Your task to perform on an android device: Go to display settings Image 0: 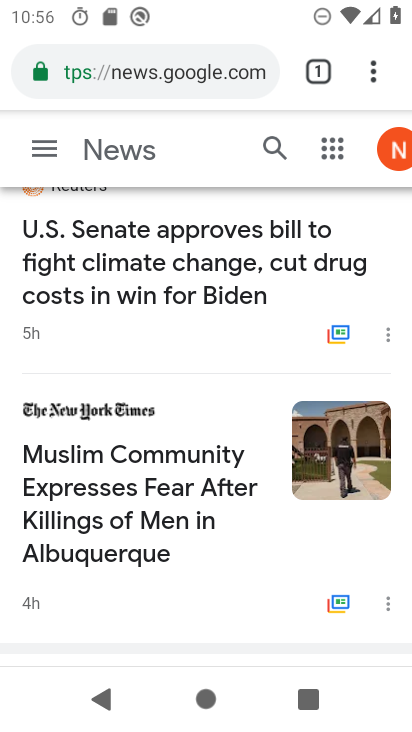
Step 0: press home button
Your task to perform on an android device: Go to display settings Image 1: 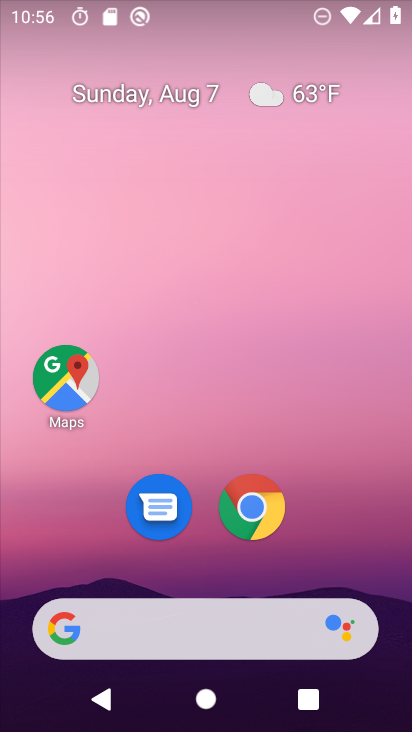
Step 1: drag from (349, 518) to (314, 18)
Your task to perform on an android device: Go to display settings Image 2: 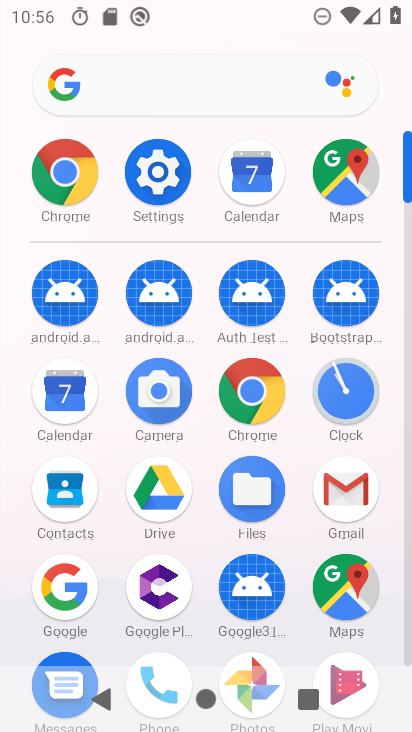
Step 2: click (168, 159)
Your task to perform on an android device: Go to display settings Image 3: 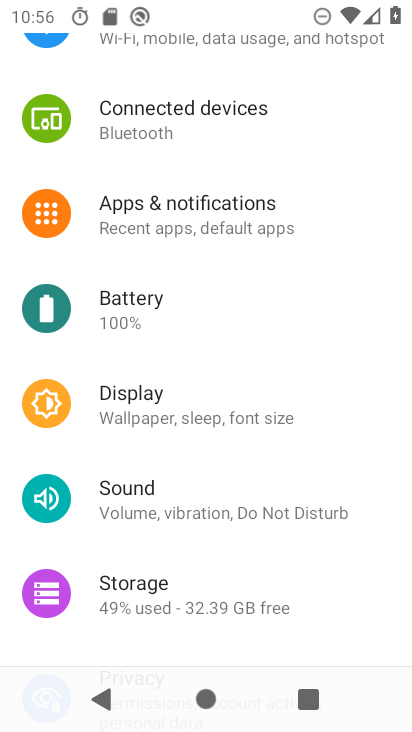
Step 3: click (164, 424)
Your task to perform on an android device: Go to display settings Image 4: 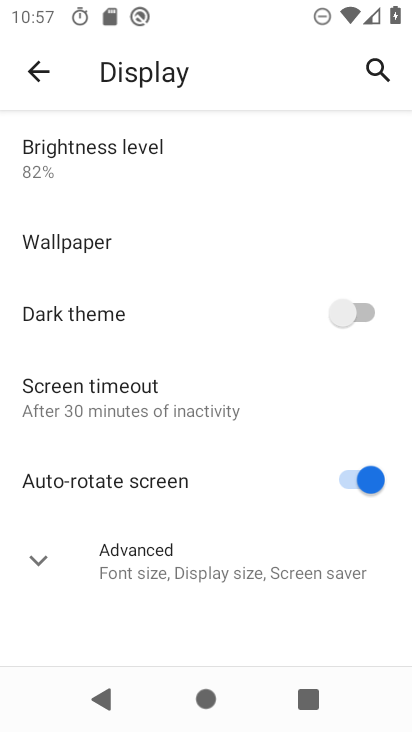
Step 4: task complete